Your task to perform on an android device: toggle notifications settings in the gmail app Image 0: 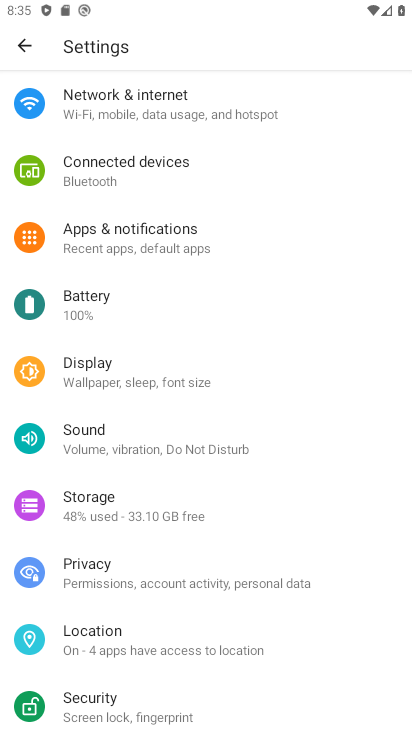
Step 0: press home button
Your task to perform on an android device: toggle notifications settings in the gmail app Image 1: 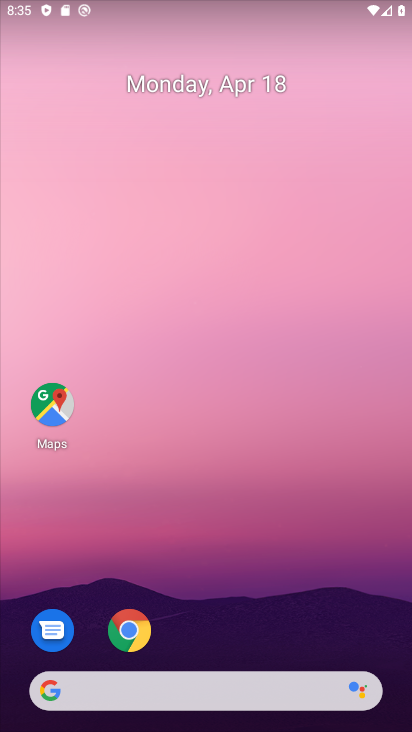
Step 1: drag from (296, 435) to (288, 161)
Your task to perform on an android device: toggle notifications settings in the gmail app Image 2: 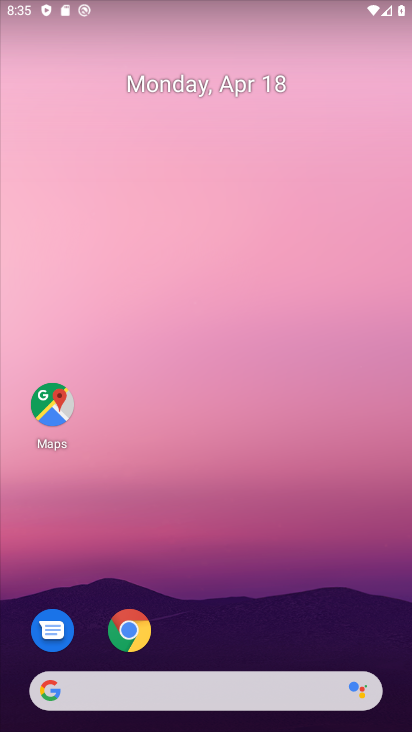
Step 2: drag from (348, 206) to (345, 160)
Your task to perform on an android device: toggle notifications settings in the gmail app Image 3: 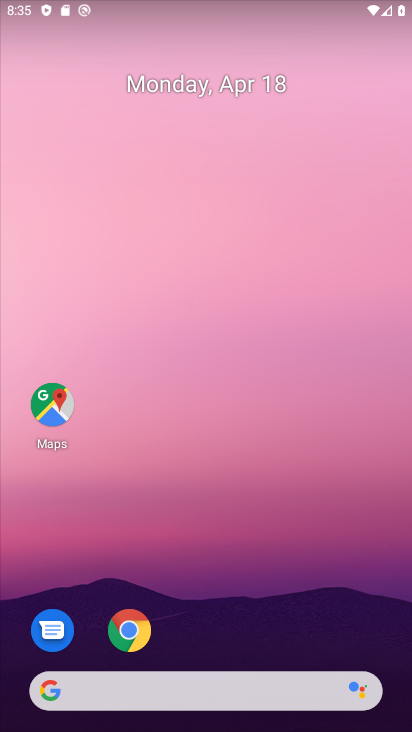
Step 3: drag from (392, 637) to (316, 121)
Your task to perform on an android device: toggle notifications settings in the gmail app Image 4: 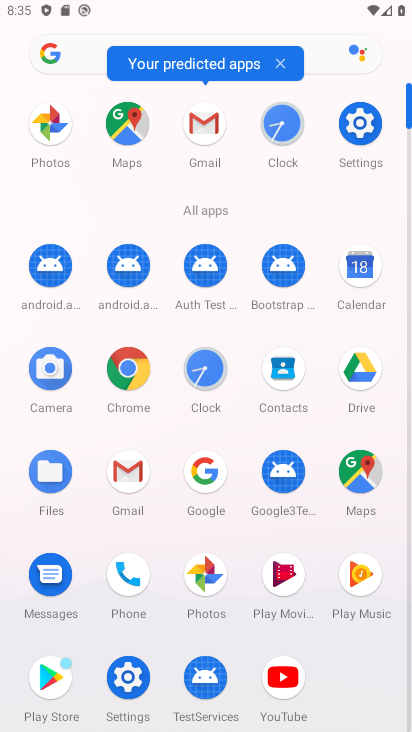
Step 4: click (205, 128)
Your task to perform on an android device: toggle notifications settings in the gmail app Image 5: 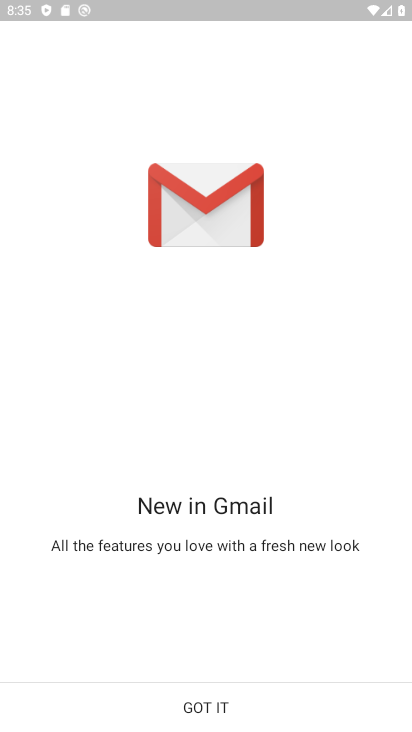
Step 5: click (209, 702)
Your task to perform on an android device: toggle notifications settings in the gmail app Image 6: 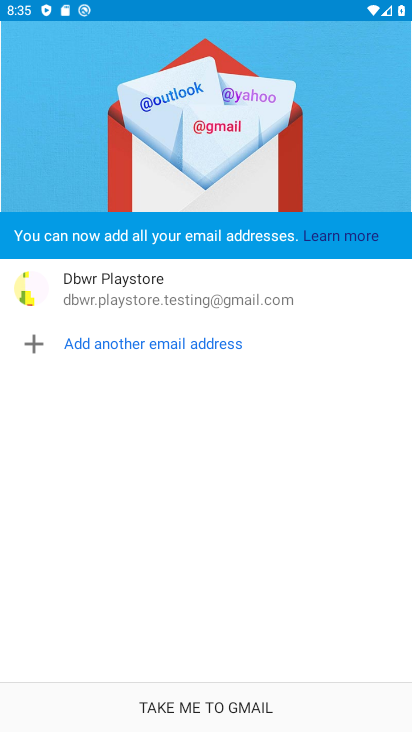
Step 6: click (255, 698)
Your task to perform on an android device: toggle notifications settings in the gmail app Image 7: 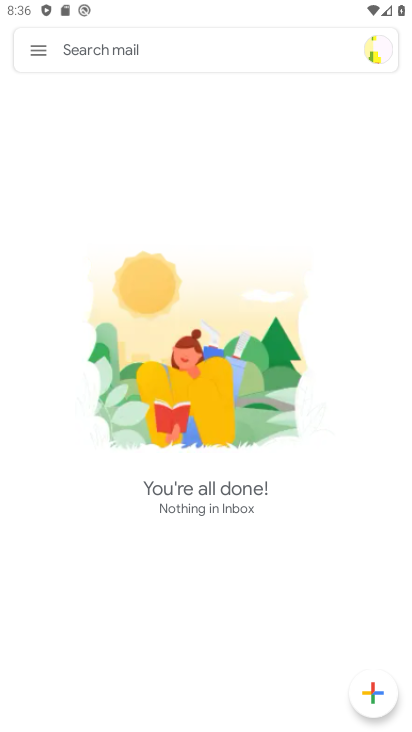
Step 7: click (34, 44)
Your task to perform on an android device: toggle notifications settings in the gmail app Image 8: 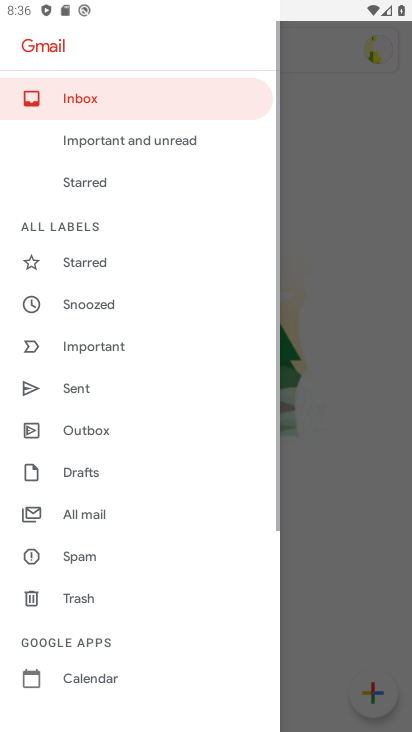
Step 8: drag from (76, 670) to (95, 225)
Your task to perform on an android device: toggle notifications settings in the gmail app Image 9: 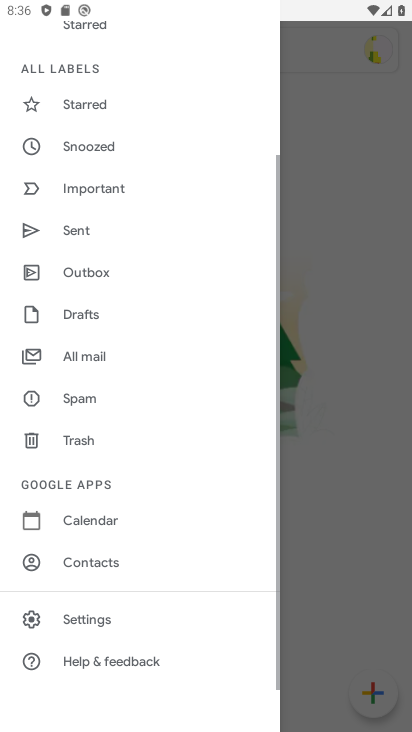
Step 9: click (99, 616)
Your task to perform on an android device: toggle notifications settings in the gmail app Image 10: 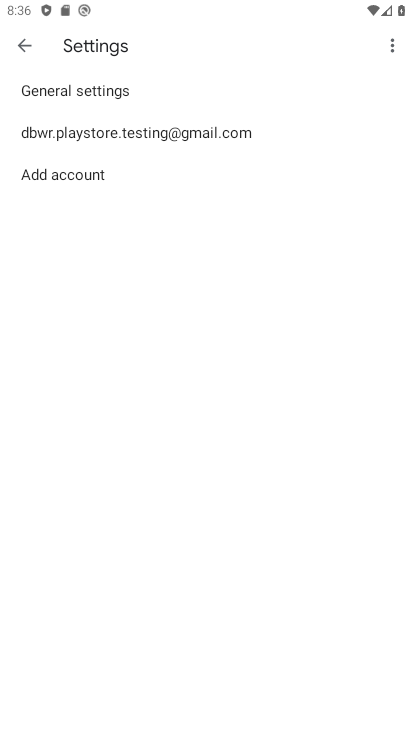
Step 10: click (141, 128)
Your task to perform on an android device: toggle notifications settings in the gmail app Image 11: 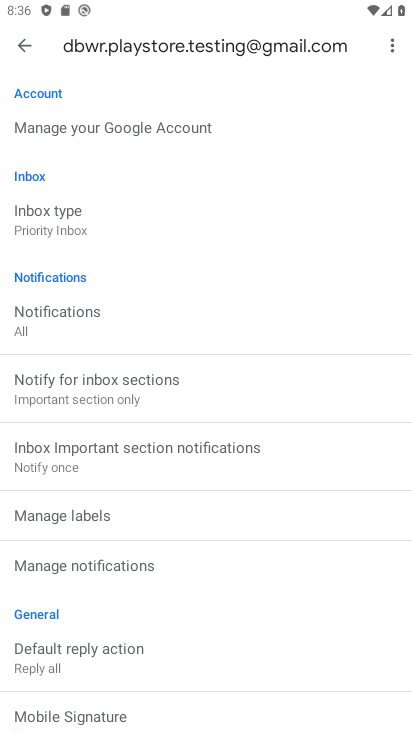
Step 11: click (95, 559)
Your task to perform on an android device: toggle notifications settings in the gmail app Image 12: 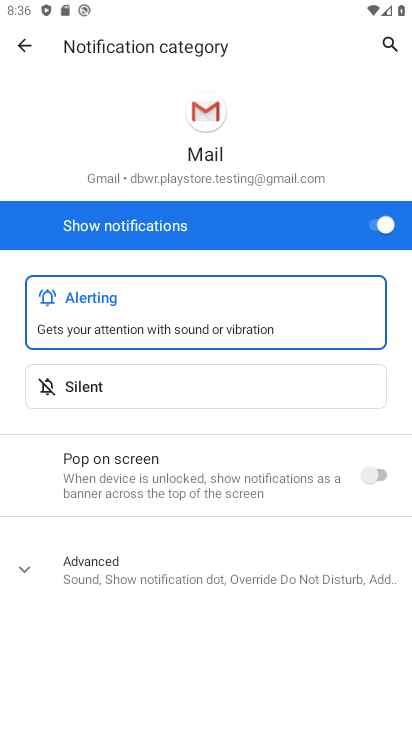
Step 12: click (359, 233)
Your task to perform on an android device: toggle notifications settings in the gmail app Image 13: 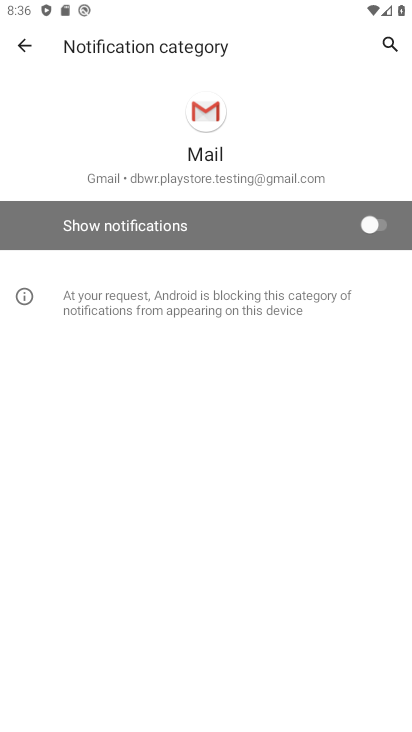
Step 13: task complete